Your task to perform on an android device: Do I have any events today? Image 0: 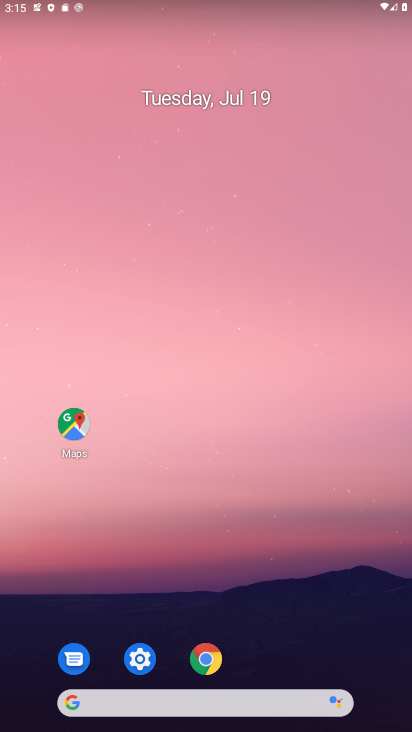
Step 0: click (208, 284)
Your task to perform on an android device: Do I have any events today? Image 1: 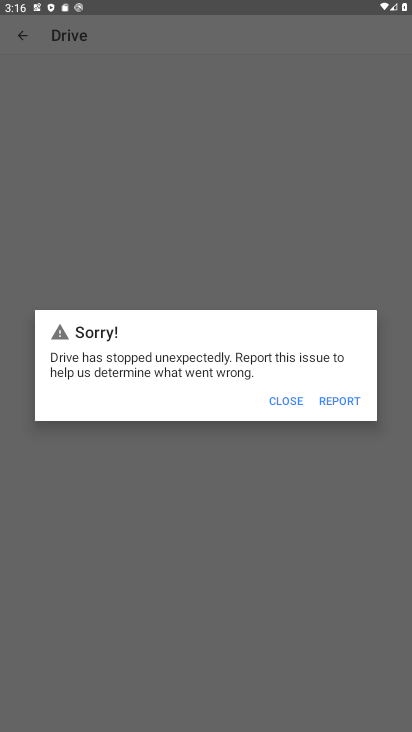
Step 1: click (286, 395)
Your task to perform on an android device: Do I have any events today? Image 2: 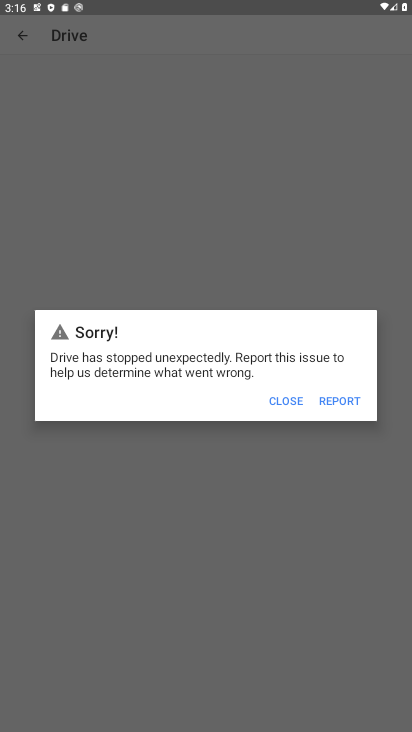
Step 2: click (286, 396)
Your task to perform on an android device: Do I have any events today? Image 3: 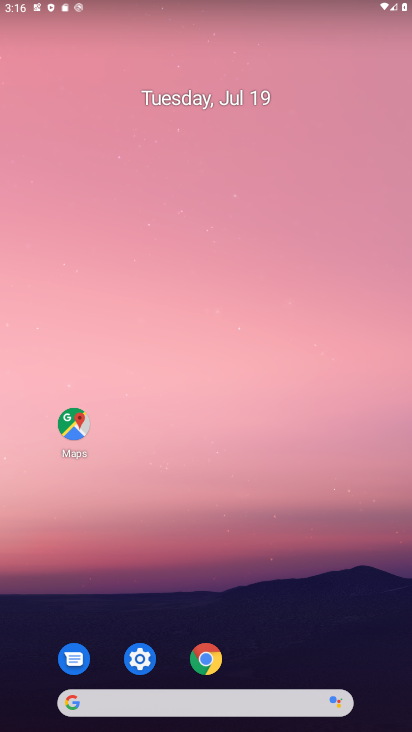
Step 3: drag from (192, 625) to (134, 110)
Your task to perform on an android device: Do I have any events today? Image 4: 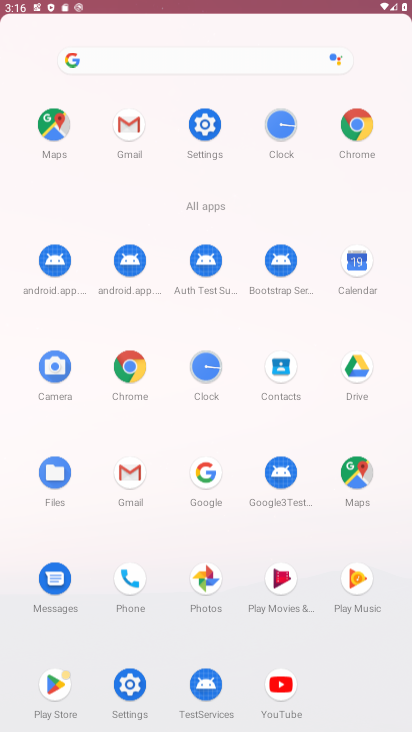
Step 4: drag from (171, 489) to (157, 67)
Your task to perform on an android device: Do I have any events today? Image 5: 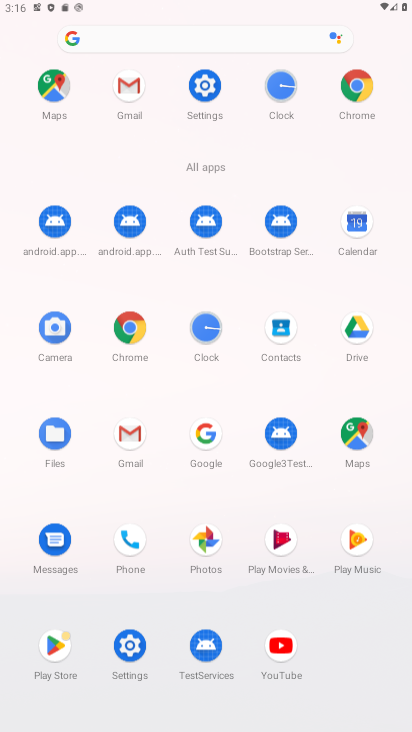
Step 5: drag from (192, 523) to (180, 22)
Your task to perform on an android device: Do I have any events today? Image 6: 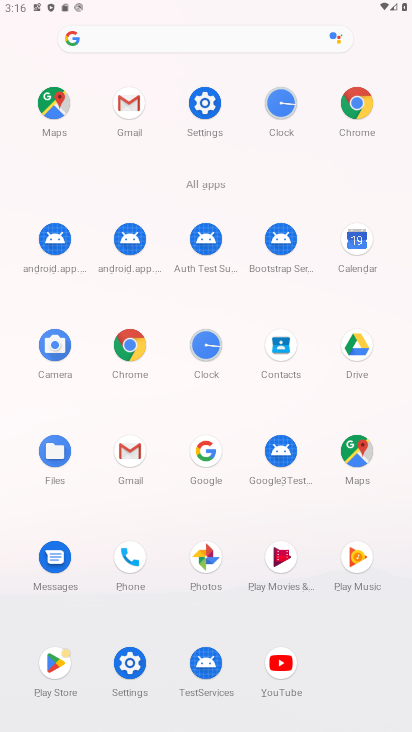
Step 6: click (346, 250)
Your task to perform on an android device: Do I have any events today? Image 7: 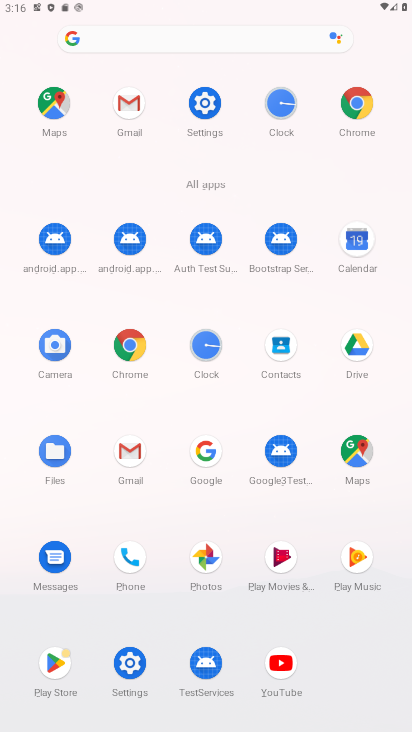
Step 7: click (354, 248)
Your task to perform on an android device: Do I have any events today? Image 8: 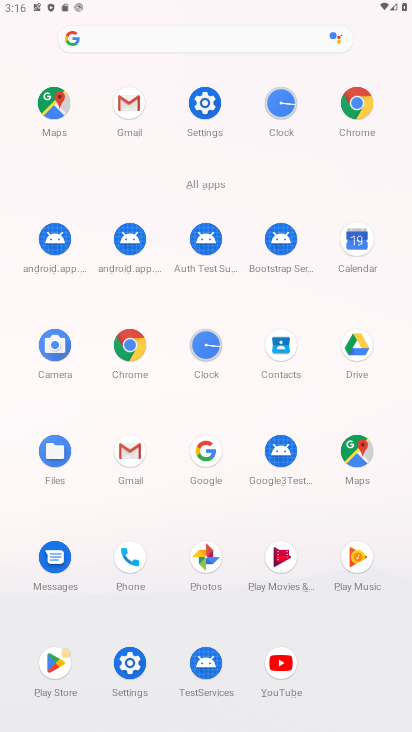
Step 8: click (355, 249)
Your task to perform on an android device: Do I have any events today? Image 9: 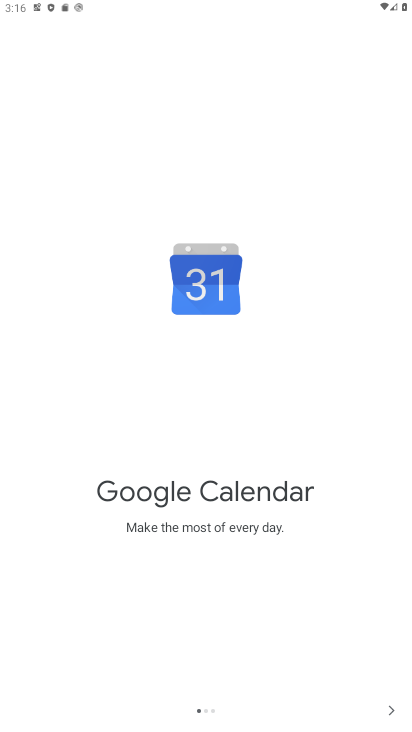
Step 9: click (394, 701)
Your task to perform on an android device: Do I have any events today? Image 10: 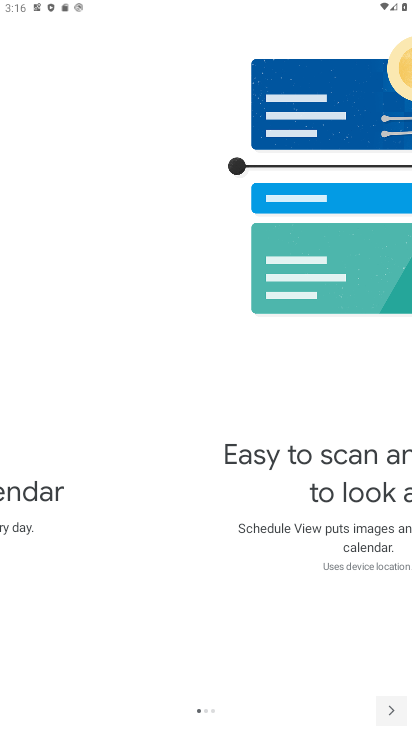
Step 10: click (394, 701)
Your task to perform on an android device: Do I have any events today? Image 11: 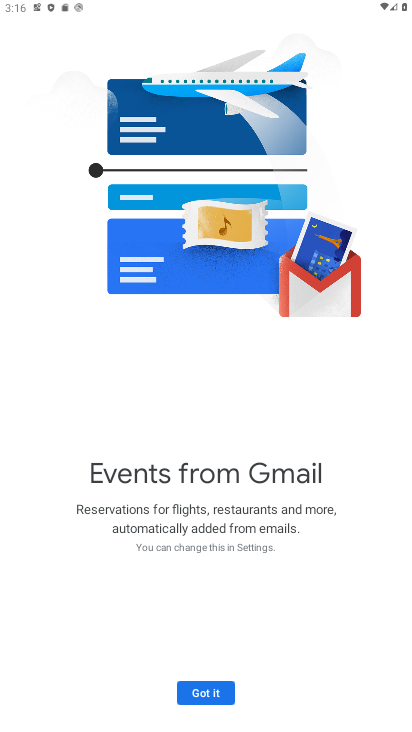
Step 11: click (203, 694)
Your task to perform on an android device: Do I have any events today? Image 12: 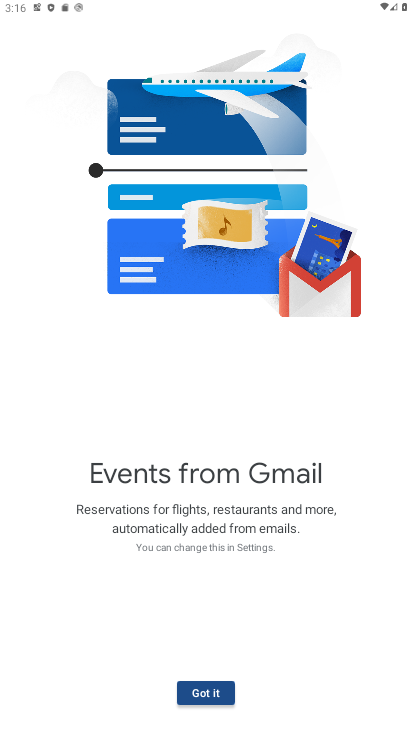
Step 12: click (203, 694)
Your task to perform on an android device: Do I have any events today? Image 13: 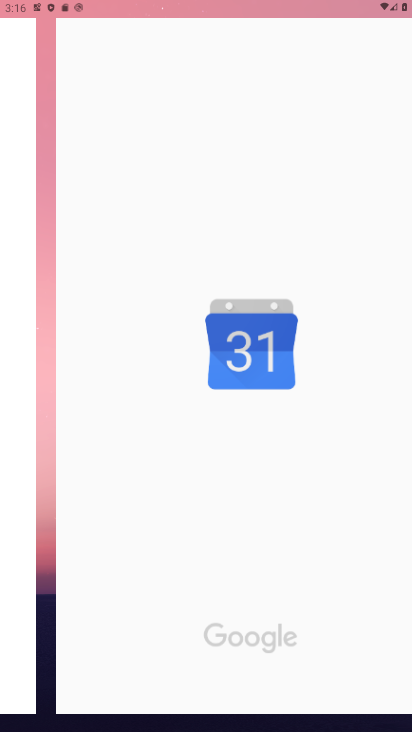
Step 13: click (204, 696)
Your task to perform on an android device: Do I have any events today? Image 14: 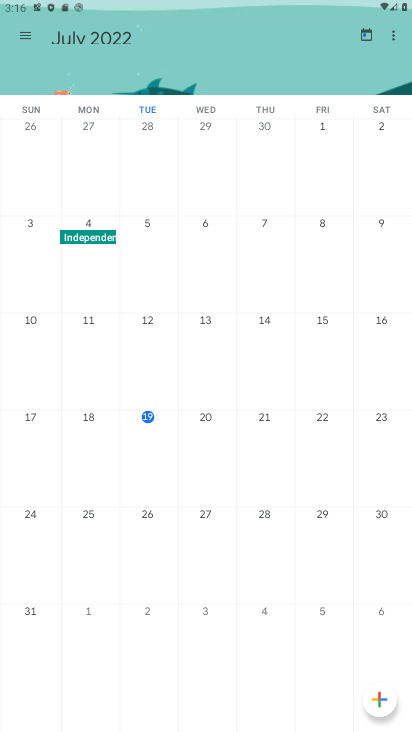
Step 14: click (150, 414)
Your task to perform on an android device: Do I have any events today? Image 15: 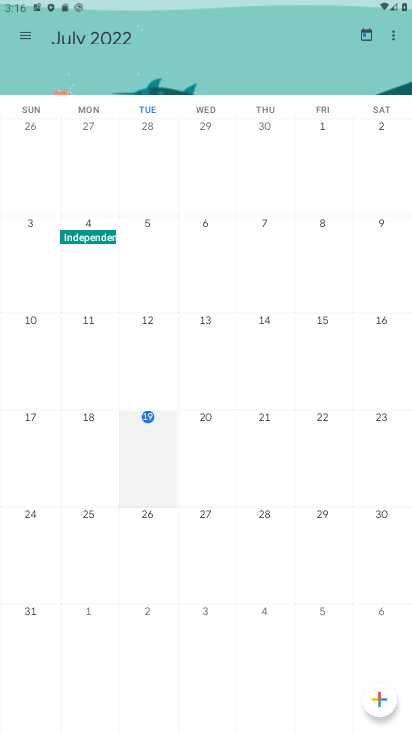
Step 15: click (149, 414)
Your task to perform on an android device: Do I have any events today? Image 16: 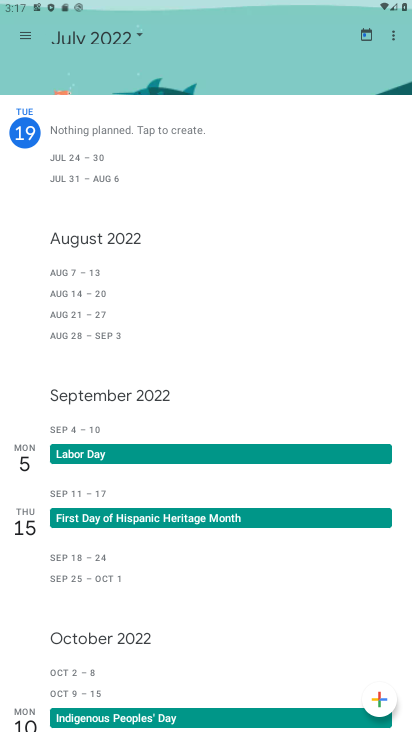
Step 16: task complete